Your task to perform on an android device: Go to location settings Image 0: 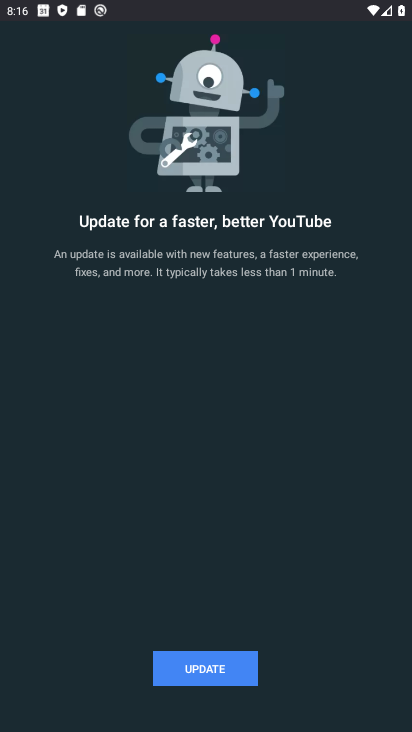
Step 0: press home button
Your task to perform on an android device: Go to location settings Image 1: 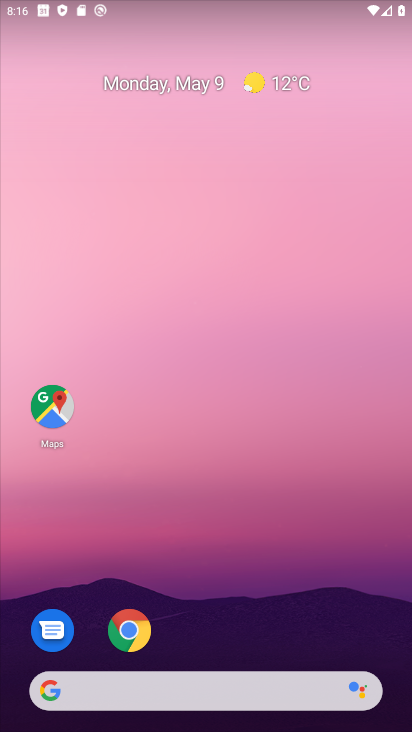
Step 1: drag from (147, 616) to (204, 2)
Your task to perform on an android device: Go to location settings Image 2: 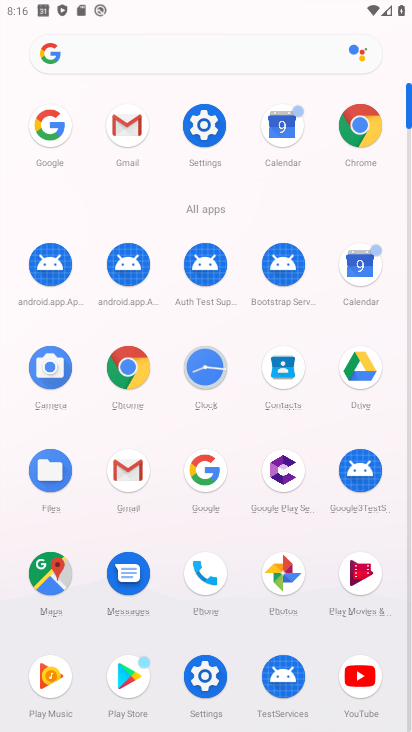
Step 2: click (202, 122)
Your task to perform on an android device: Go to location settings Image 3: 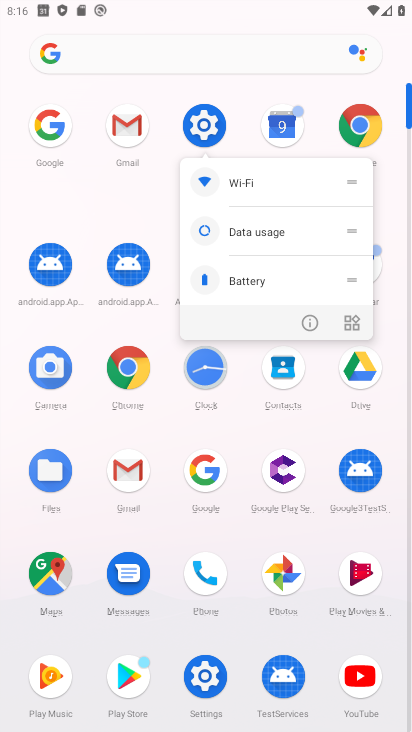
Step 3: click (202, 122)
Your task to perform on an android device: Go to location settings Image 4: 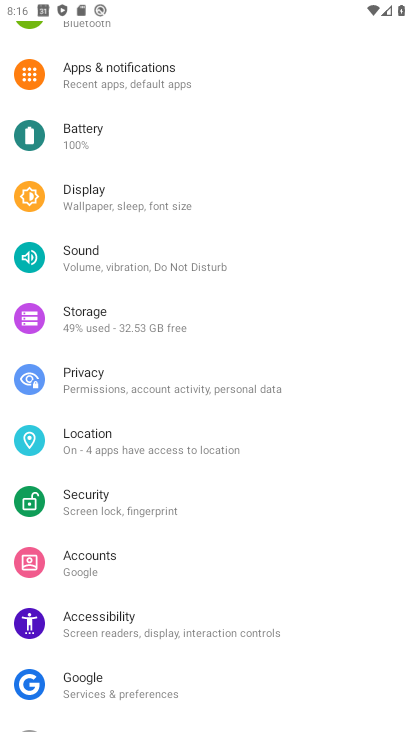
Step 4: click (99, 434)
Your task to perform on an android device: Go to location settings Image 5: 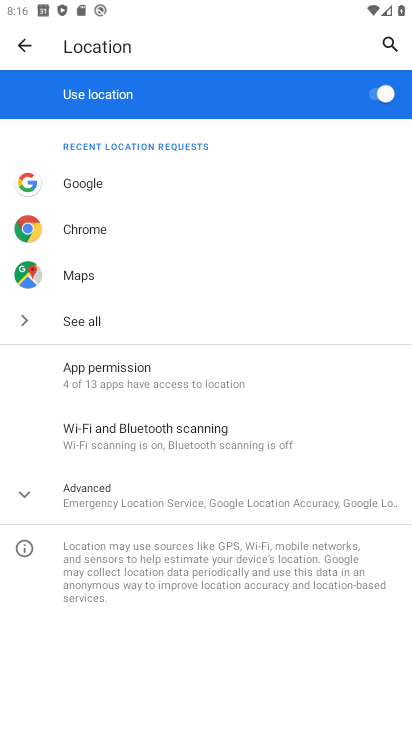
Step 5: click (20, 500)
Your task to perform on an android device: Go to location settings Image 6: 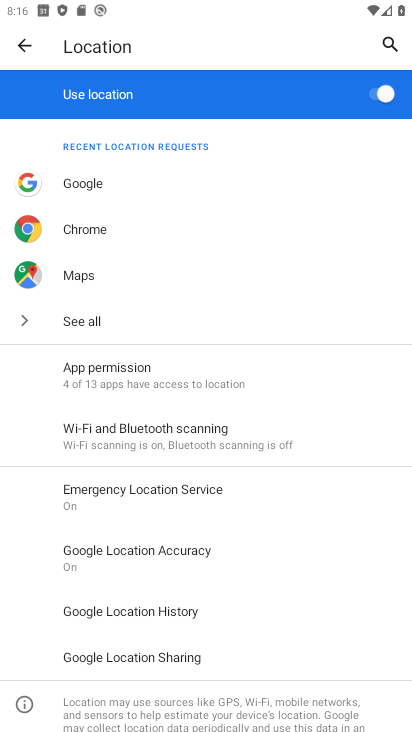
Step 6: task complete